Your task to perform on an android device: Open Maps and search for coffee Image 0: 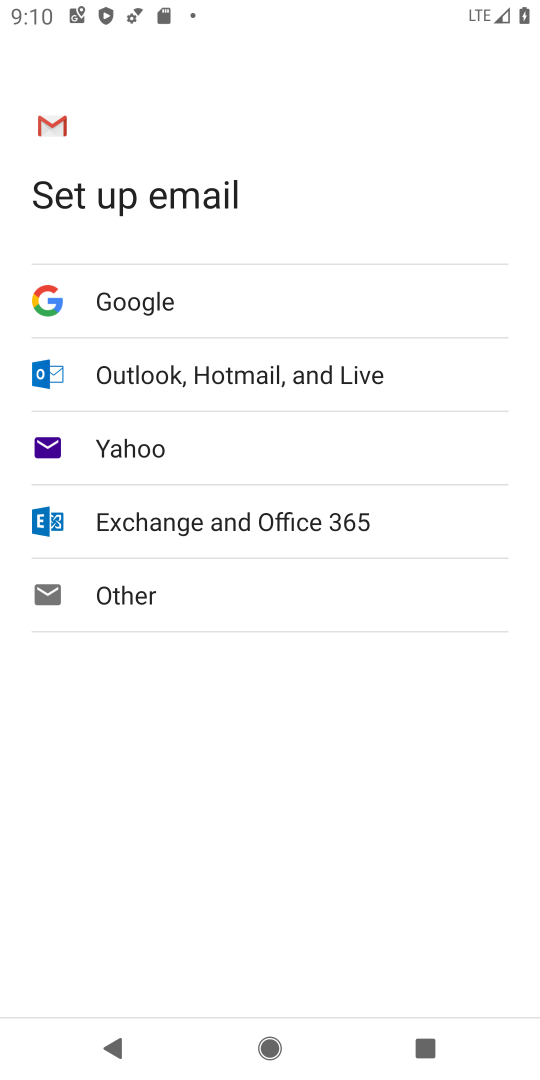
Step 0: press home button
Your task to perform on an android device: Open Maps and search for coffee Image 1: 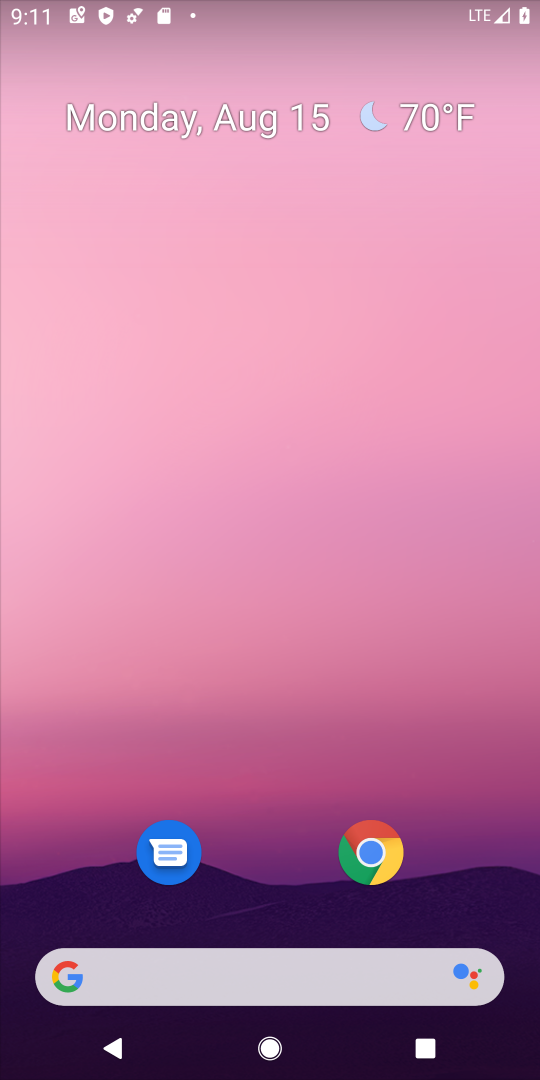
Step 1: drag from (254, 977) to (388, 270)
Your task to perform on an android device: Open Maps and search for coffee Image 2: 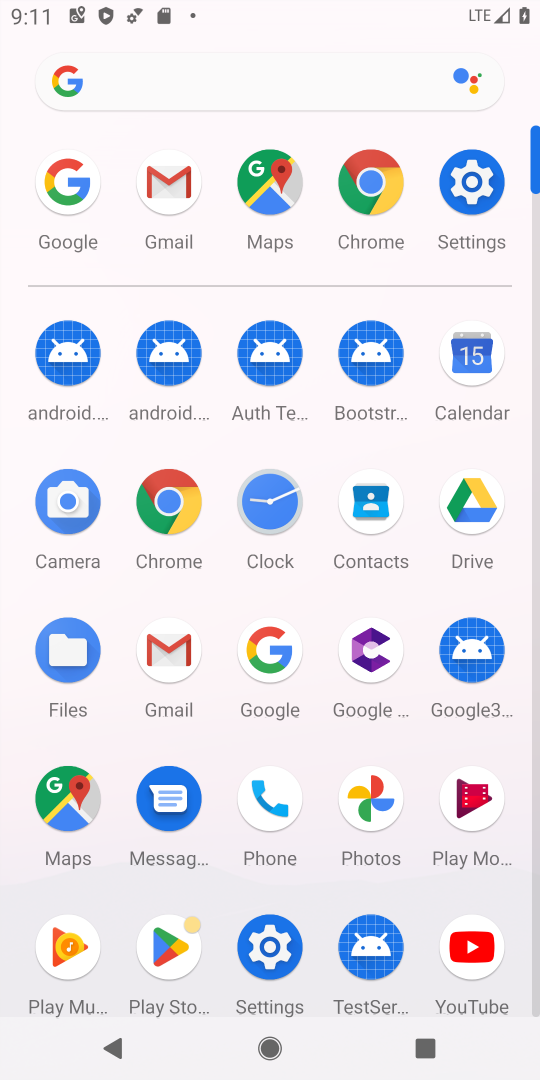
Step 2: click (275, 183)
Your task to perform on an android device: Open Maps and search for coffee Image 3: 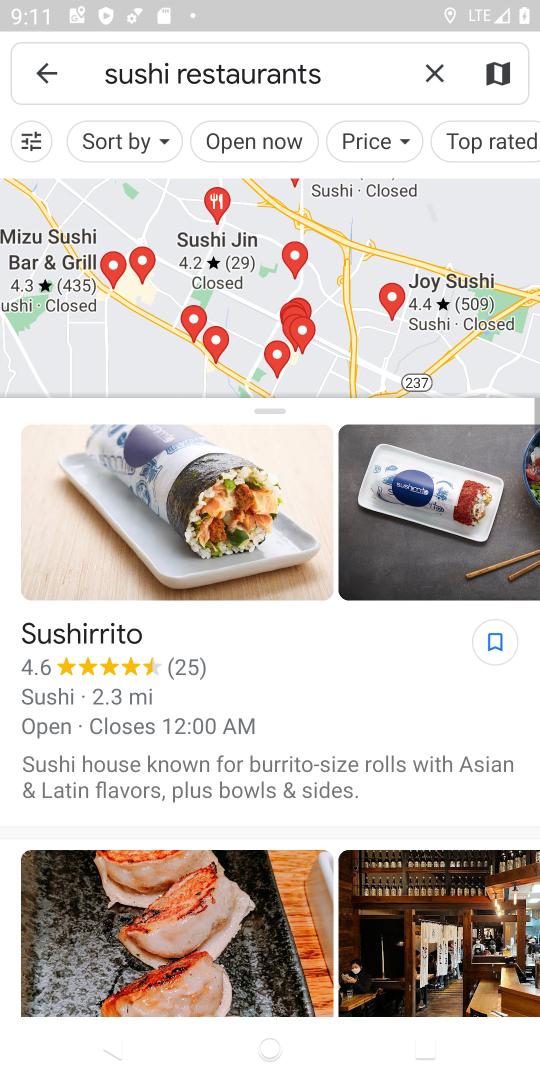
Step 3: click (432, 74)
Your task to perform on an android device: Open Maps and search for coffee Image 4: 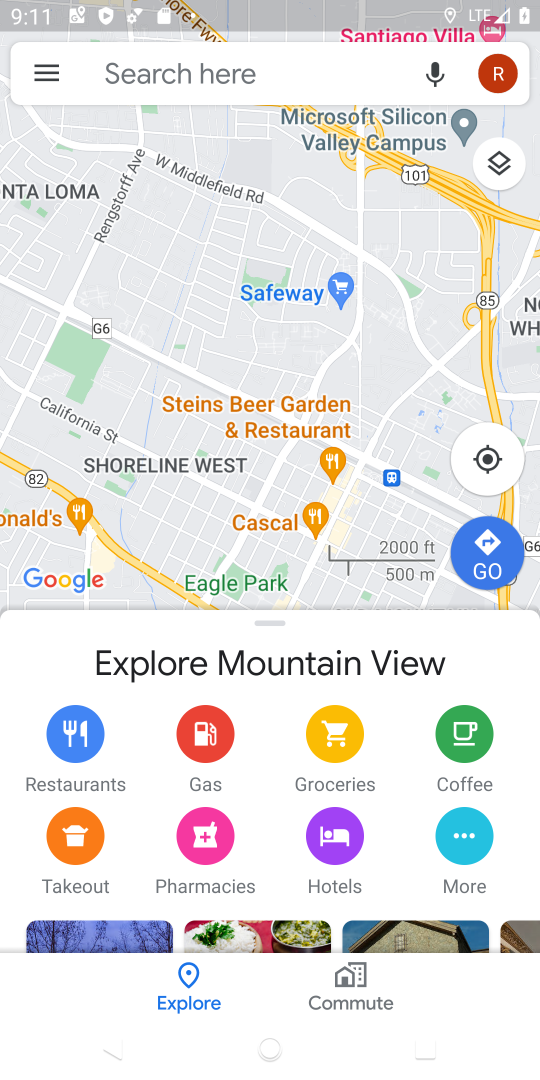
Step 4: click (288, 67)
Your task to perform on an android device: Open Maps and search for coffee Image 5: 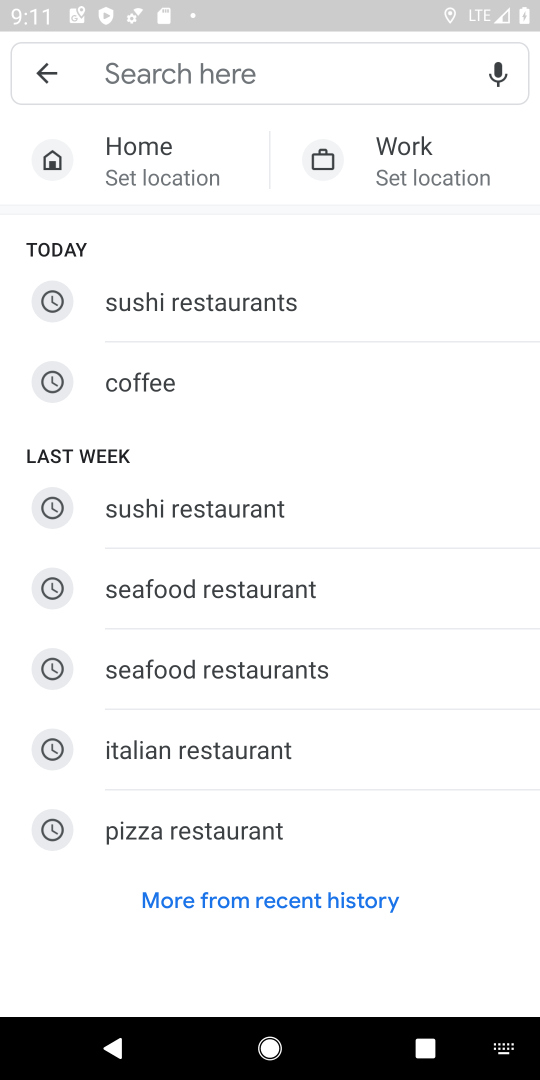
Step 5: type "coffee"
Your task to perform on an android device: Open Maps and search for coffee Image 6: 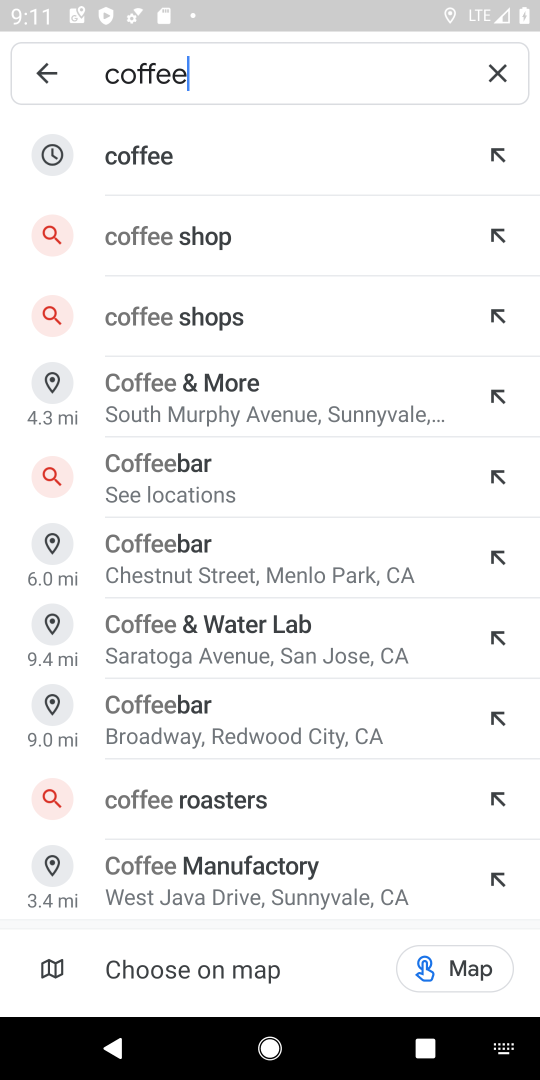
Step 6: click (146, 155)
Your task to perform on an android device: Open Maps and search for coffee Image 7: 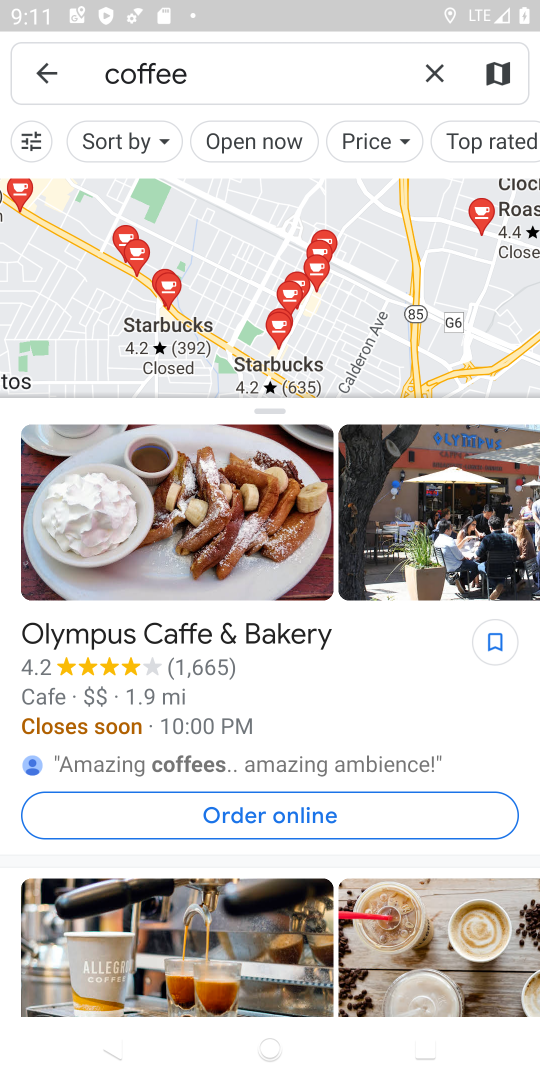
Step 7: task complete